Your task to perform on an android device: Go to Wikipedia Image 0: 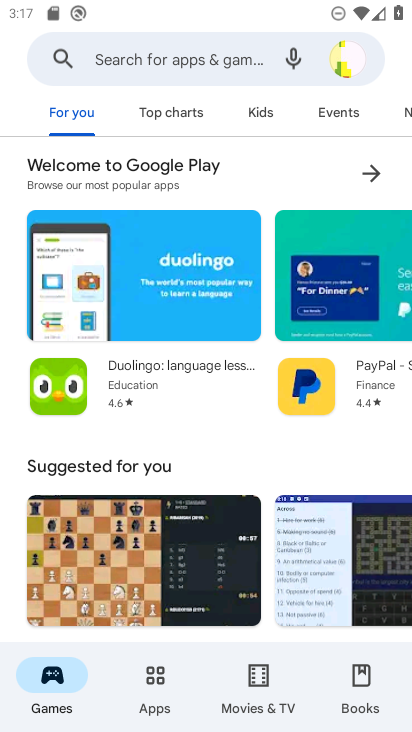
Step 0: drag from (268, 580) to (374, 142)
Your task to perform on an android device: Go to Wikipedia Image 1: 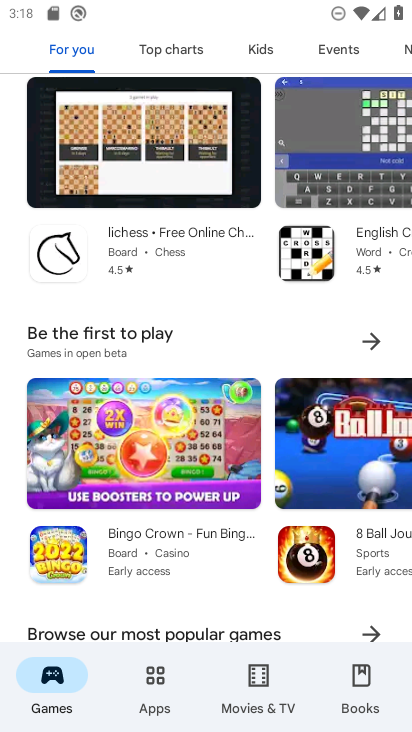
Step 1: drag from (269, 93) to (282, 488)
Your task to perform on an android device: Go to Wikipedia Image 2: 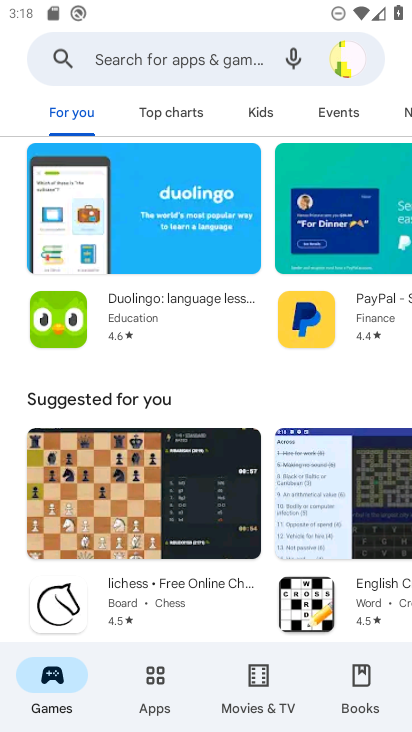
Step 2: click (330, 59)
Your task to perform on an android device: Go to Wikipedia Image 3: 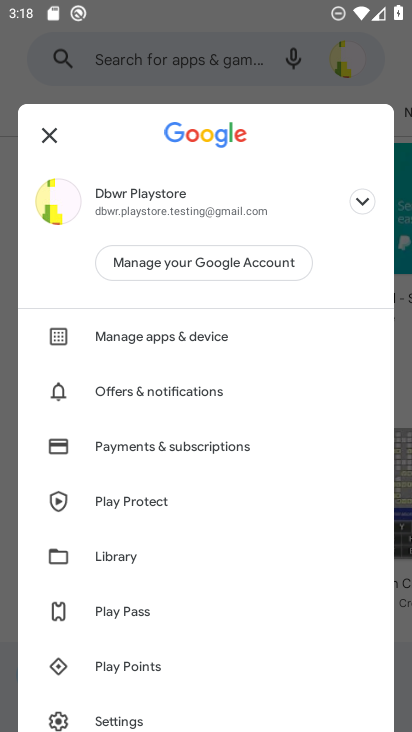
Step 3: drag from (199, 652) to (220, 197)
Your task to perform on an android device: Go to Wikipedia Image 4: 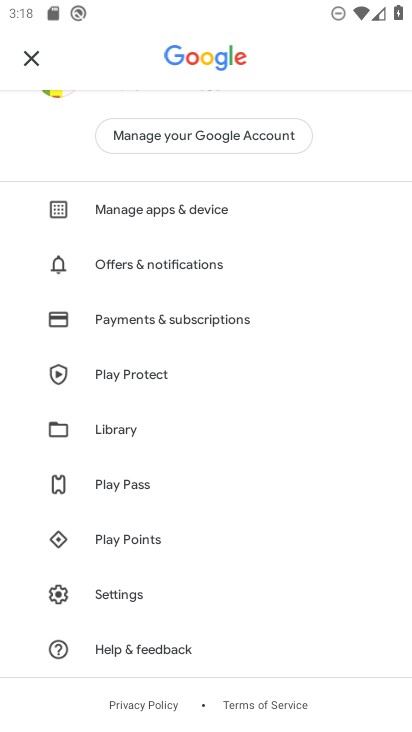
Step 4: click (39, 56)
Your task to perform on an android device: Go to Wikipedia Image 5: 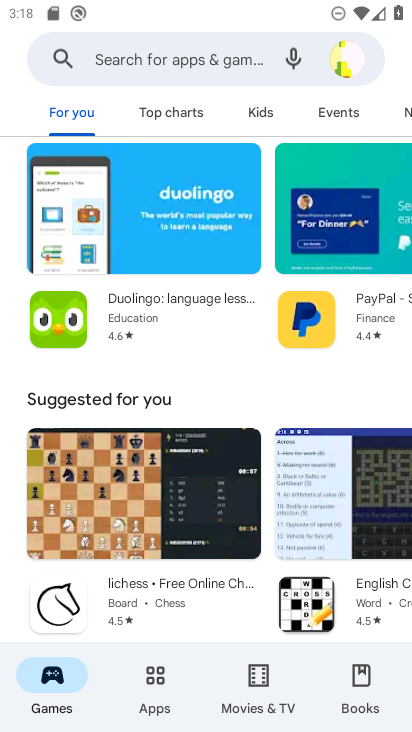
Step 5: press home button
Your task to perform on an android device: Go to Wikipedia Image 6: 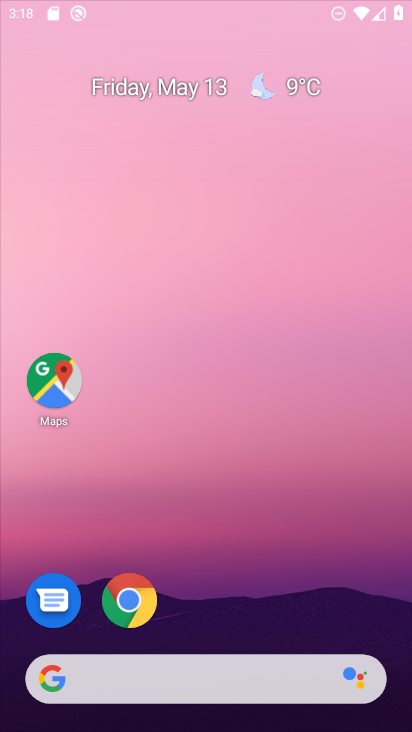
Step 6: drag from (185, 603) to (303, 156)
Your task to perform on an android device: Go to Wikipedia Image 7: 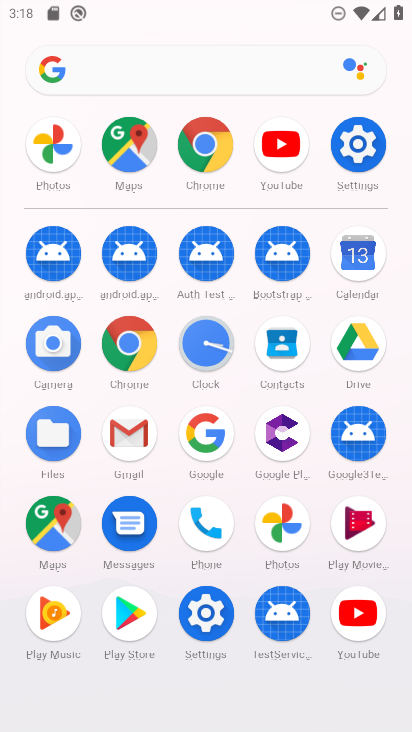
Step 7: click (205, 137)
Your task to perform on an android device: Go to Wikipedia Image 8: 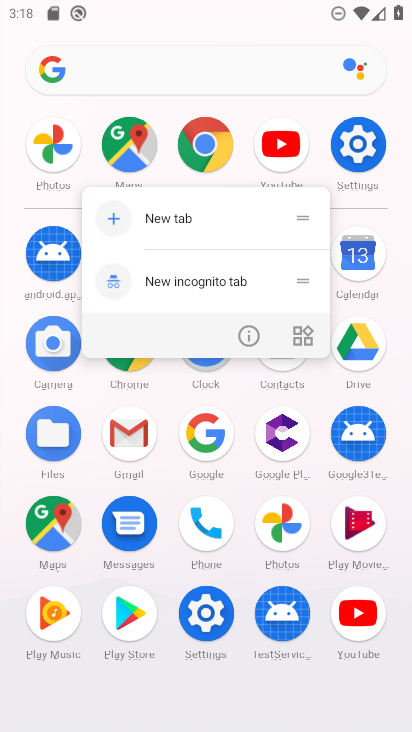
Step 8: click (252, 317)
Your task to perform on an android device: Go to Wikipedia Image 9: 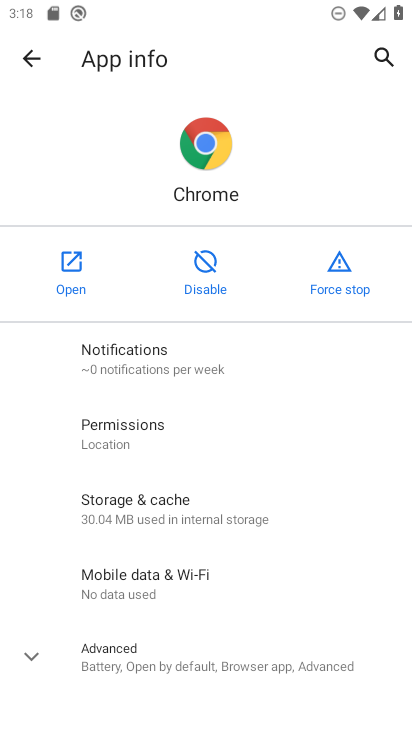
Step 9: click (85, 258)
Your task to perform on an android device: Go to Wikipedia Image 10: 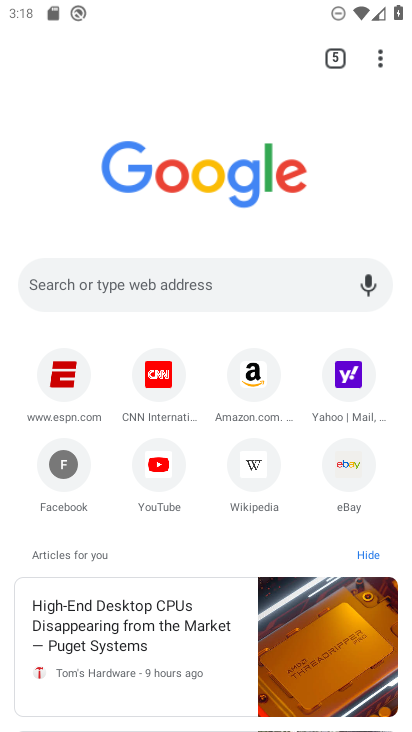
Step 10: click (270, 455)
Your task to perform on an android device: Go to Wikipedia Image 11: 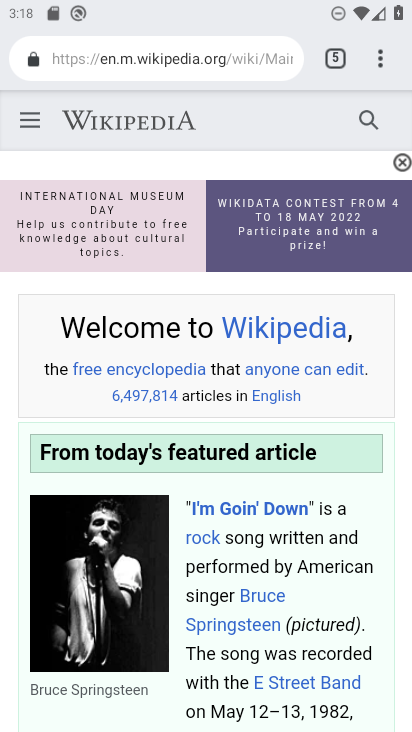
Step 11: task complete